Your task to perform on an android device: Play the last video I watched on Youtube Image 0: 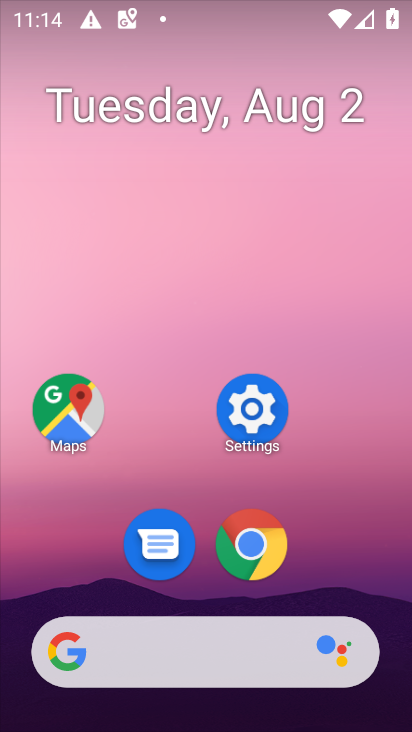
Step 0: drag from (171, 654) to (243, 74)
Your task to perform on an android device: Play the last video I watched on Youtube Image 1: 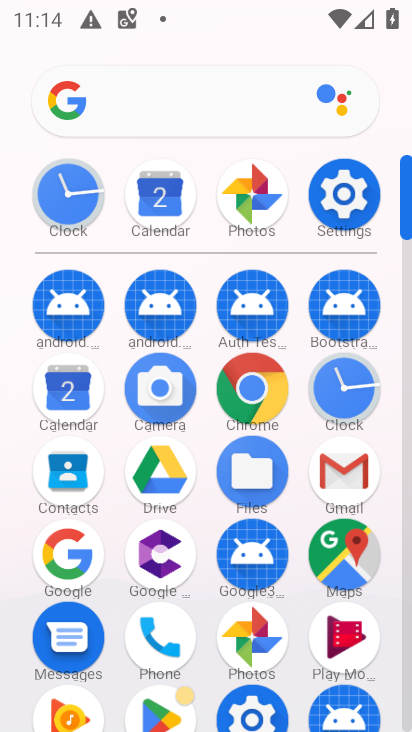
Step 1: drag from (187, 664) to (298, 143)
Your task to perform on an android device: Play the last video I watched on Youtube Image 2: 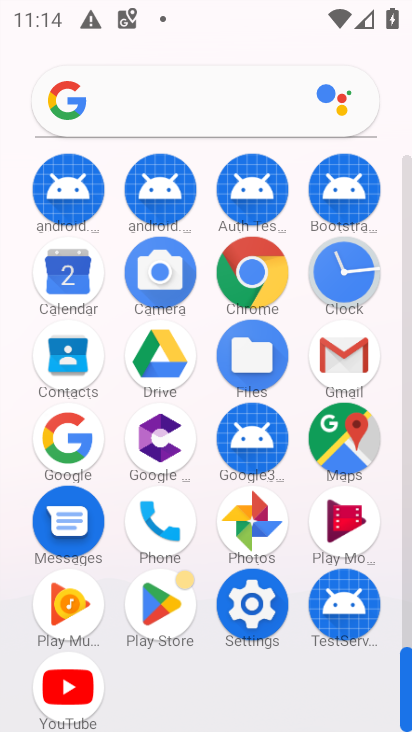
Step 2: click (66, 687)
Your task to perform on an android device: Play the last video I watched on Youtube Image 3: 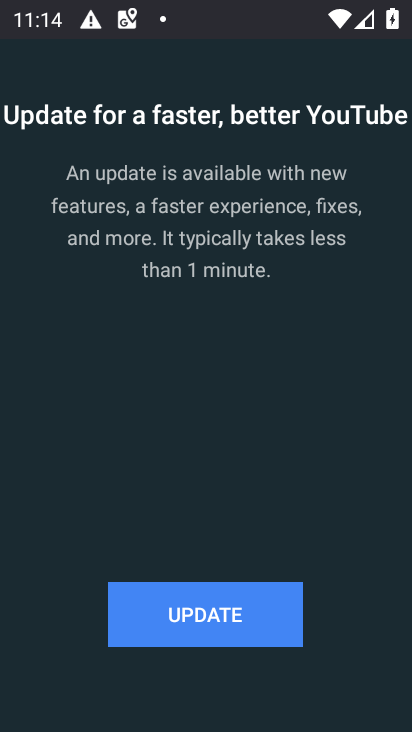
Step 3: click (192, 610)
Your task to perform on an android device: Play the last video I watched on Youtube Image 4: 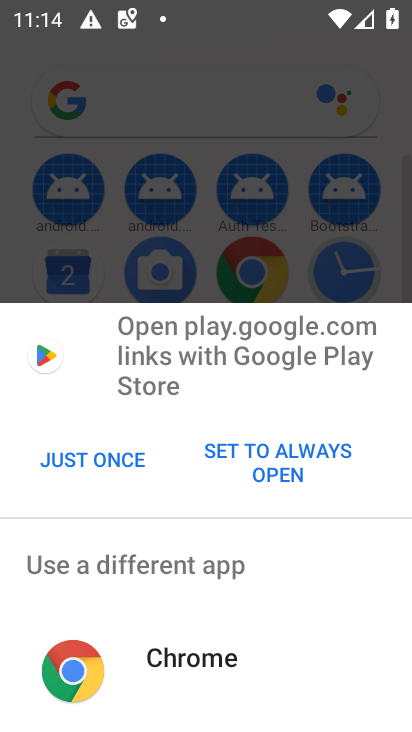
Step 4: click (126, 459)
Your task to perform on an android device: Play the last video I watched on Youtube Image 5: 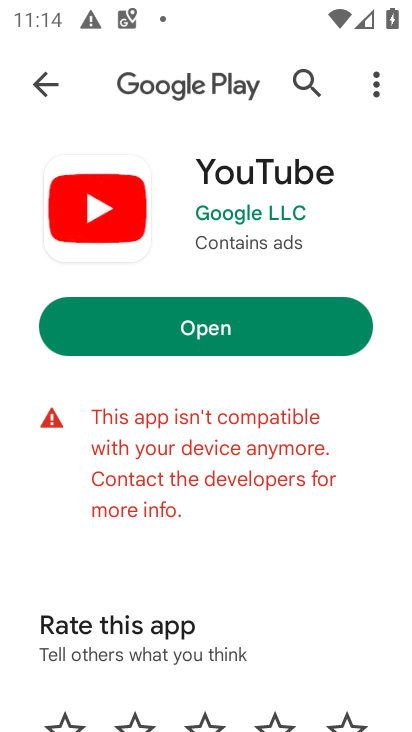
Step 5: task complete